Your task to perform on an android device: Go to display settings Image 0: 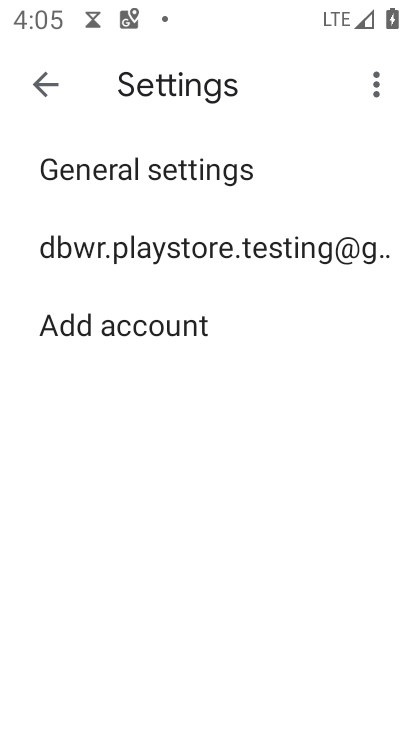
Step 0: press home button
Your task to perform on an android device: Go to display settings Image 1: 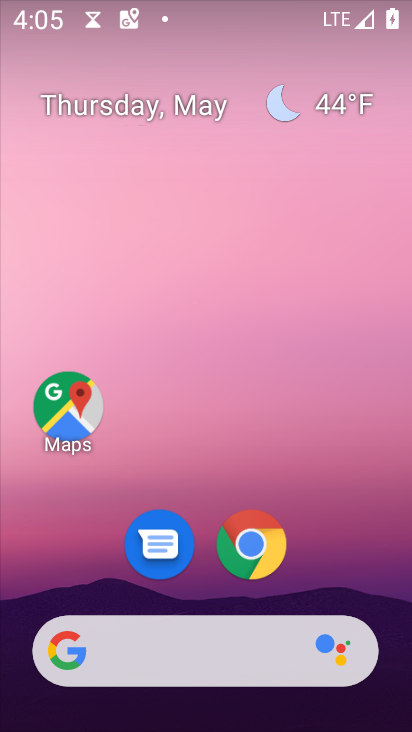
Step 1: drag from (311, 566) to (399, 54)
Your task to perform on an android device: Go to display settings Image 2: 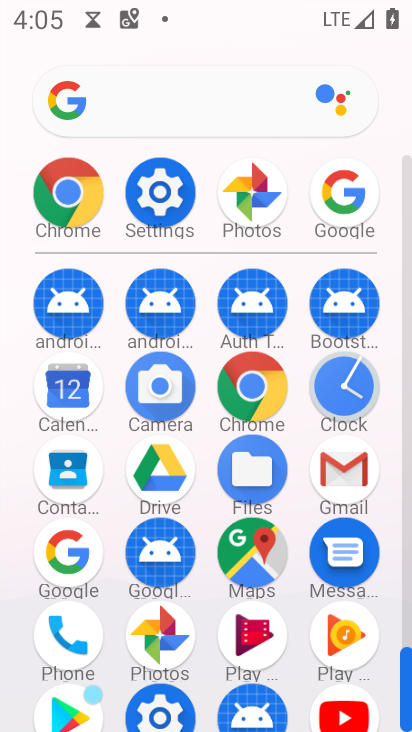
Step 2: click (161, 210)
Your task to perform on an android device: Go to display settings Image 3: 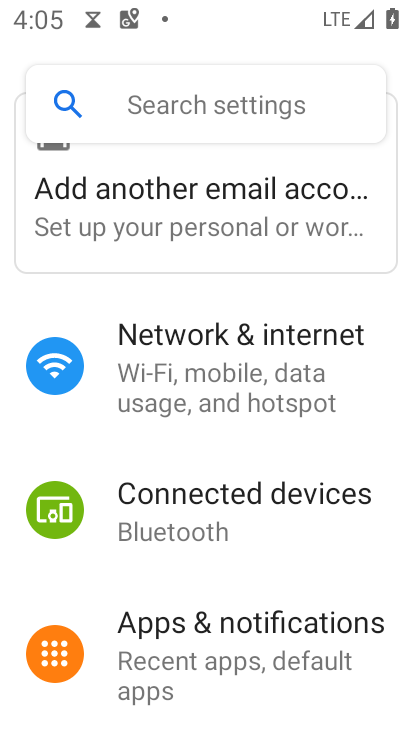
Step 3: drag from (193, 615) to (235, 414)
Your task to perform on an android device: Go to display settings Image 4: 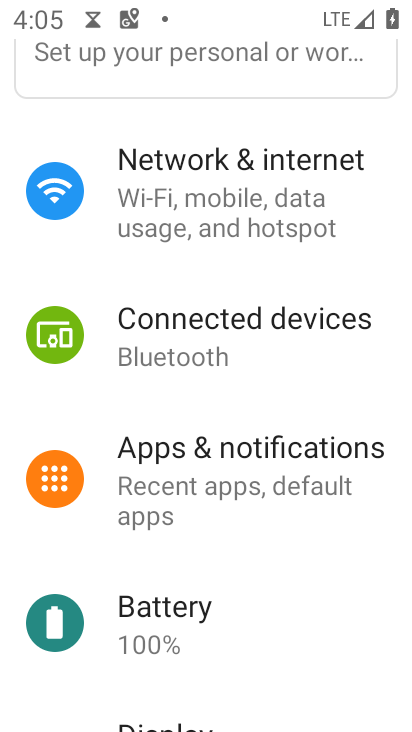
Step 4: drag from (220, 561) to (299, 343)
Your task to perform on an android device: Go to display settings Image 5: 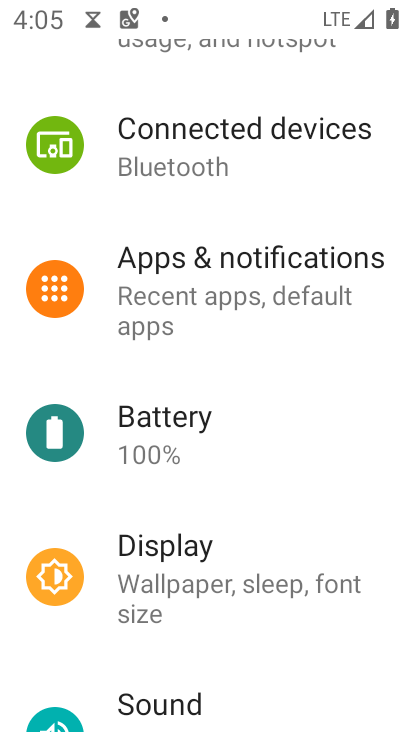
Step 5: click (220, 571)
Your task to perform on an android device: Go to display settings Image 6: 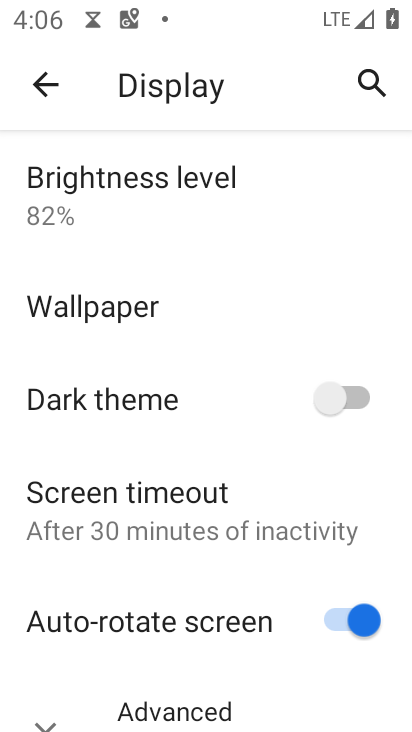
Step 6: task complete